Your task to perform on an android device: Open Google Image 0: 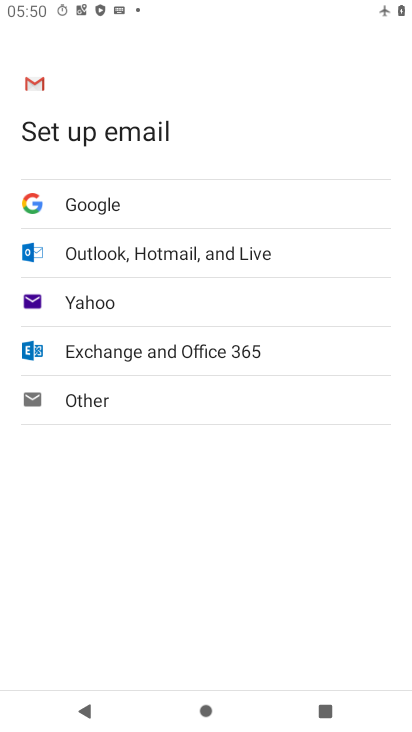
Step 0: press home button
Your task to perform on an android device: Open Google Image 1: 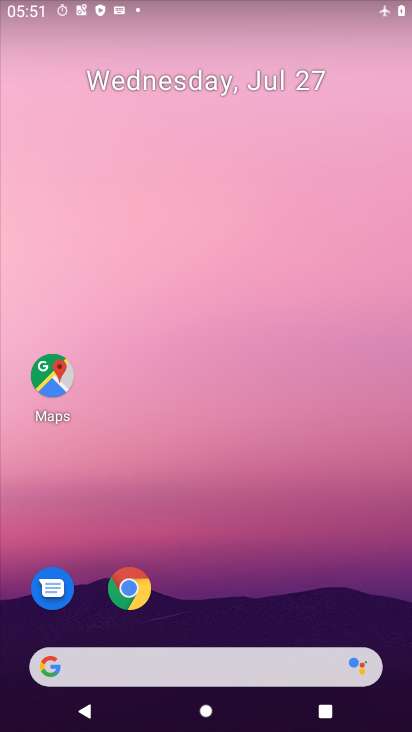
Step 1: drag from (317, 668) to (364, 142)
Your task to perform on an android device: Open Google Image 2: 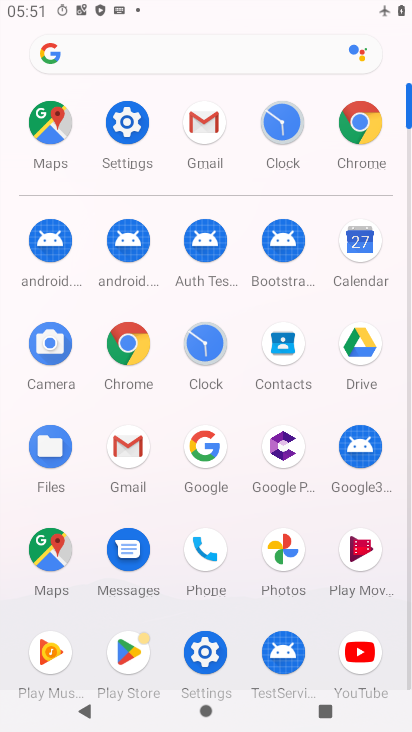
Step 2: click (129, 358)
Your task to perform on an android device: Open Google Image 3: 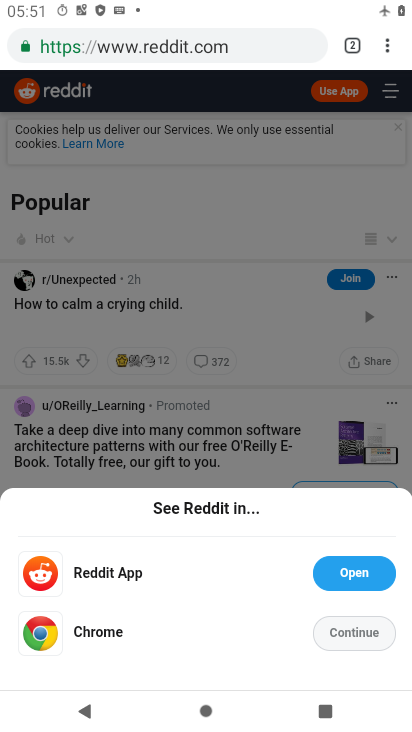
Step 3: press home button
Your task to perform on an android device: Open Google Image 4: 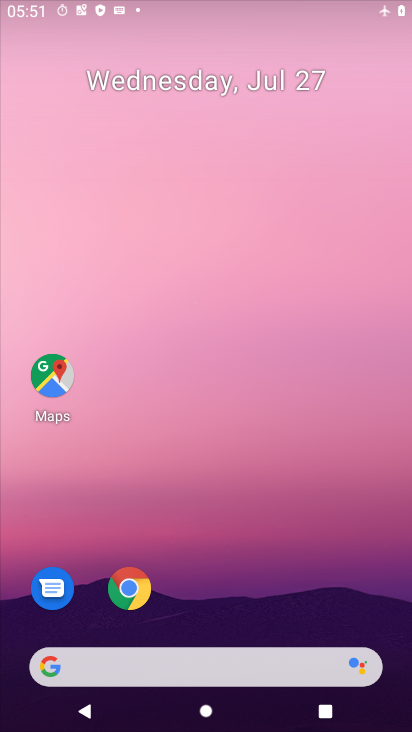
Step 4: drag from (282, 675) to (321, 4)
Your task to perform on an android device: Open Google Image 5: 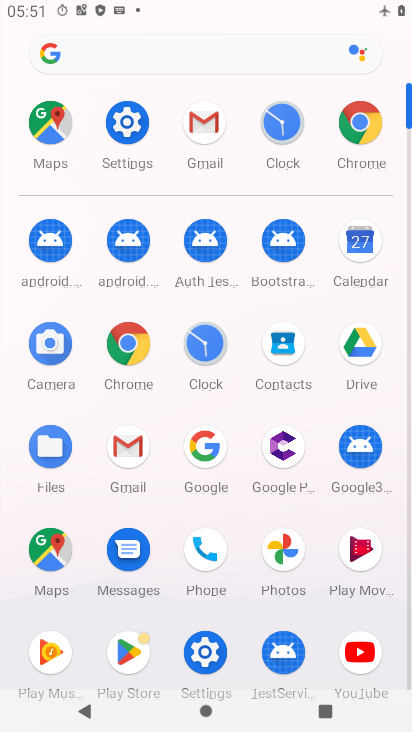
Step 5: click (203, 434)
Your task to perform on an android device: Open Google Image 6: 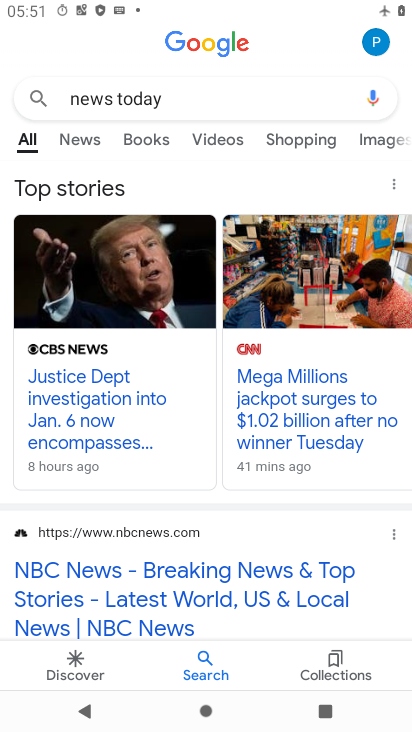
Step 6: task complete